Your task to perform on an android device: Play the last video I watched on Youtube Image 0: 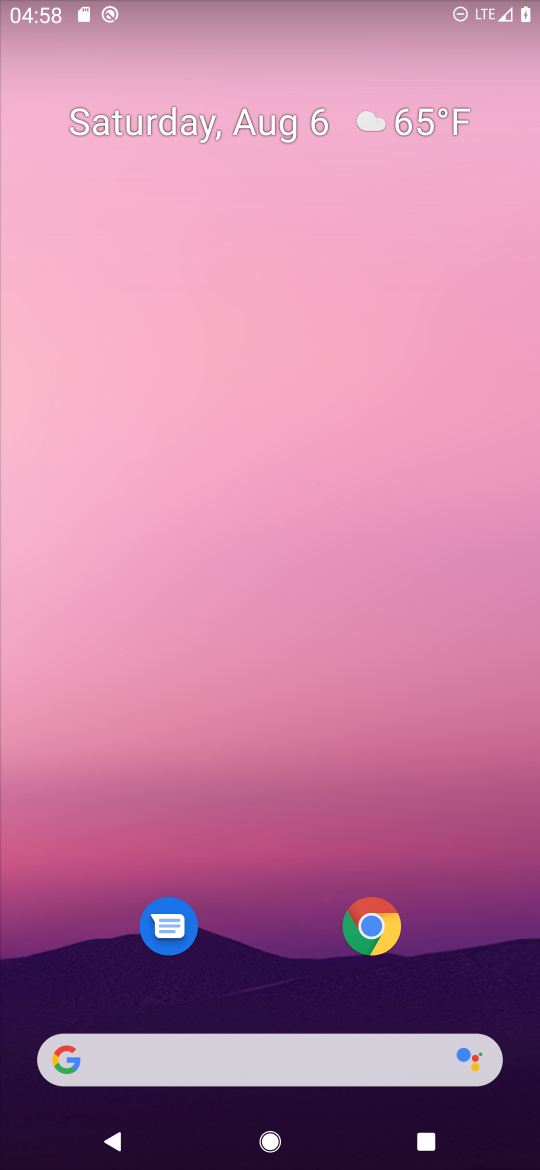
Step 0: drag from (305, 900) to (270, 192)
Your task to perform on an android device: Play the last video I watched on Youtube Image 1: 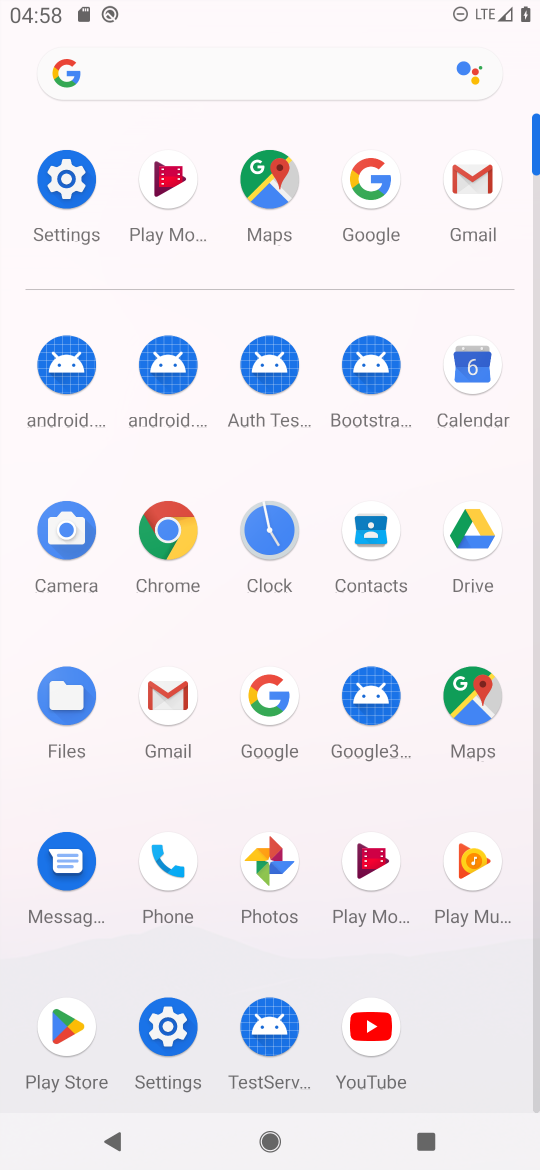
Step 1: click (366, 1012)
Your task to perform on an android device: Play the last video I watched on Youtube Image 2: 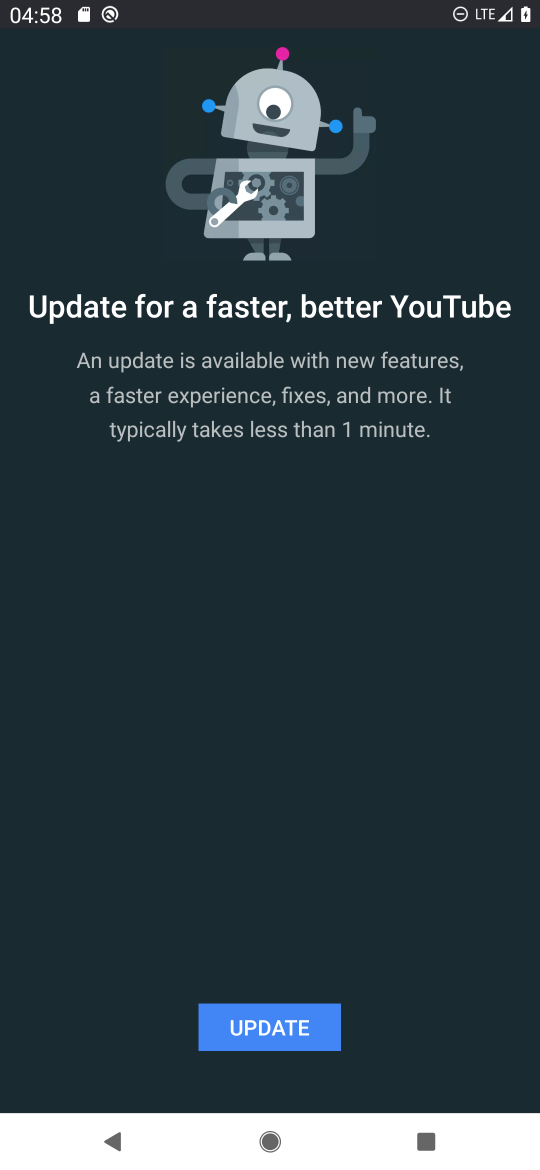
Step 2: click (240, 1033)
Your task to perform on an android device: Play the last video I watched on Youtube Image 3: 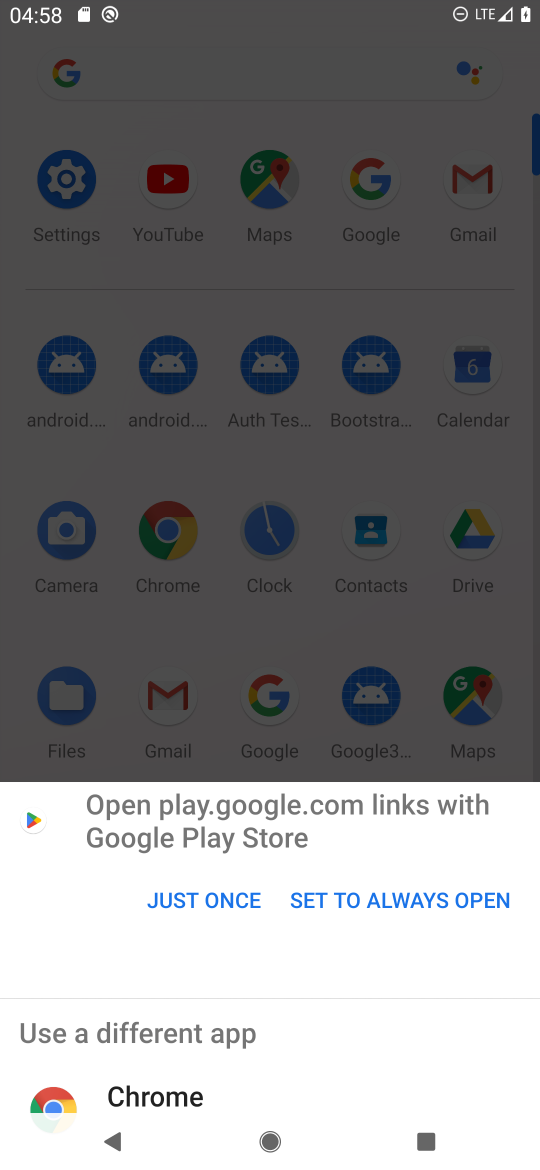
Step 3: click (165, 905)
Your task to perform on an android device: Play the last video I watched on Youtube Image 4: 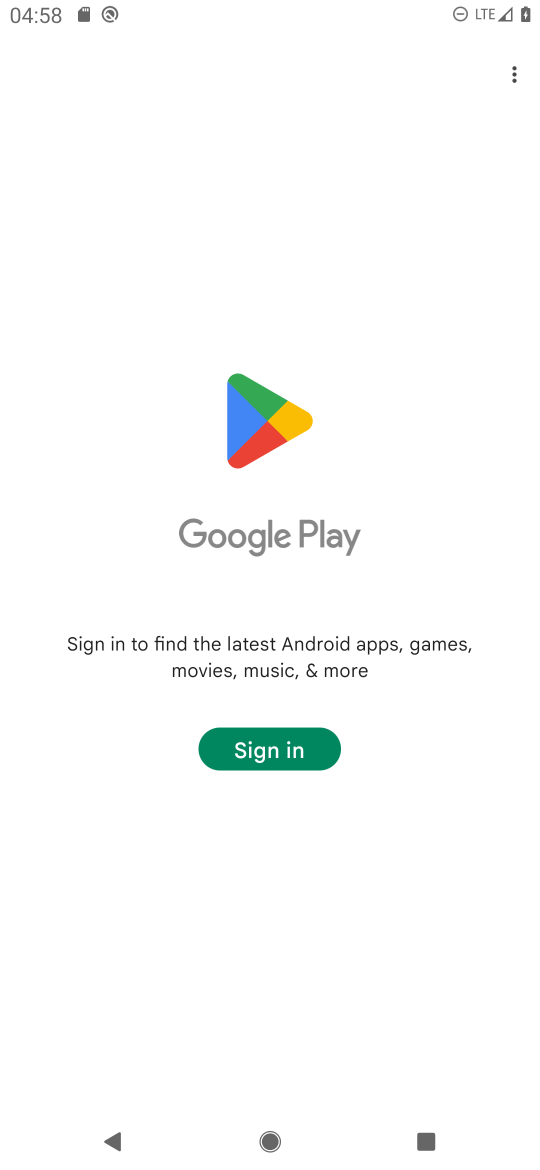
Step 4: task complete